Your task to perform on an android device: Open Youtube and go to the subscriptions tab Image 0: 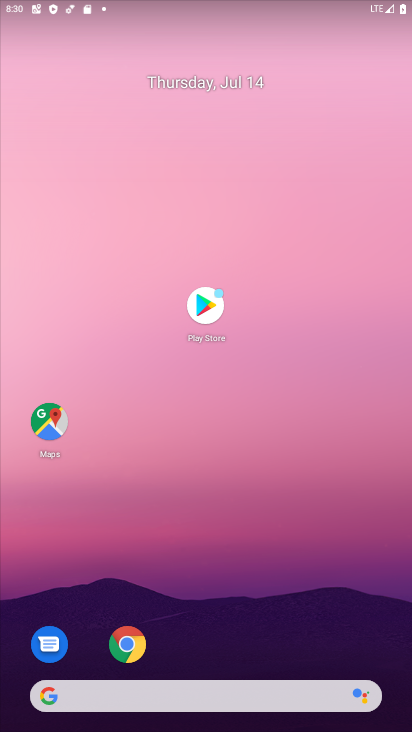
Step 0: drag from (191, 628) to (276, 93)
Your task to perform on an android device: Open Youtube and go to the subscriptions tab Image 1: 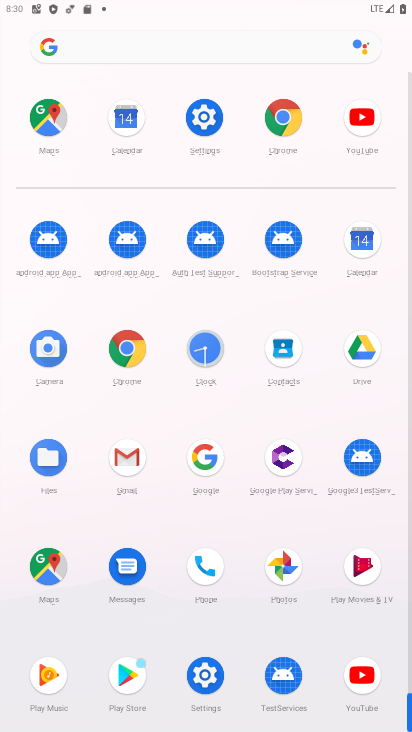
Step 1: click (349, 670)
Your task to perform on an android device: Open Youtube and go to the subscriptions tab Image 2: 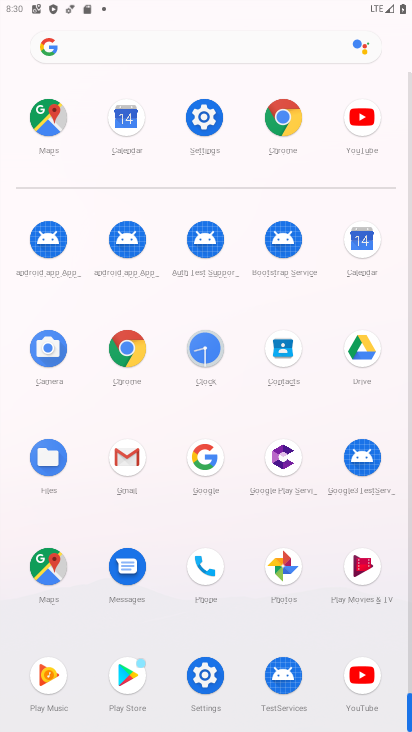
Step 2: click (348, 671)
Your task to perform on an android device: Open Youtube and go to the subscriptions tab Image 3: 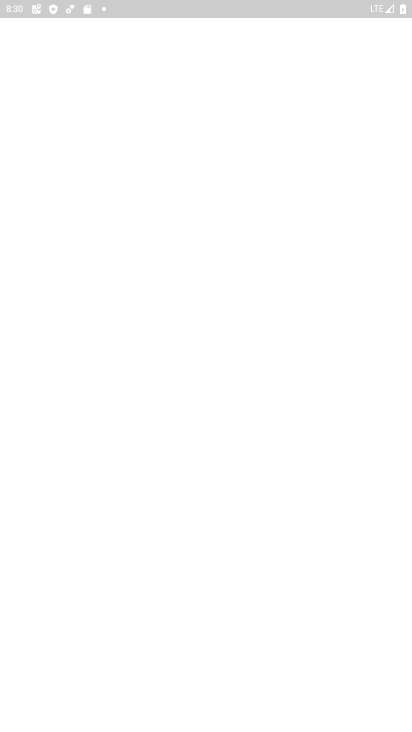
Step 3: drag from (234, 634) to (286, 264)
Your task to perform on an android device: Open Youtube and go to the subscriptions tab Image 4: 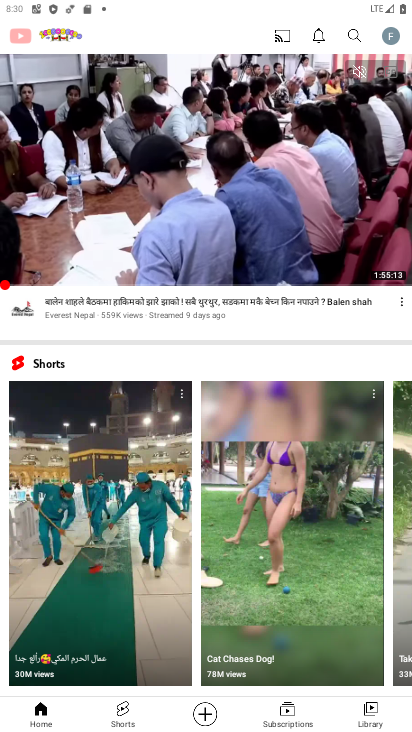
Step 4: click (277, 713)
Your task to perform on an android device: Open Youtube and go to the subscriptions tab Image 5: 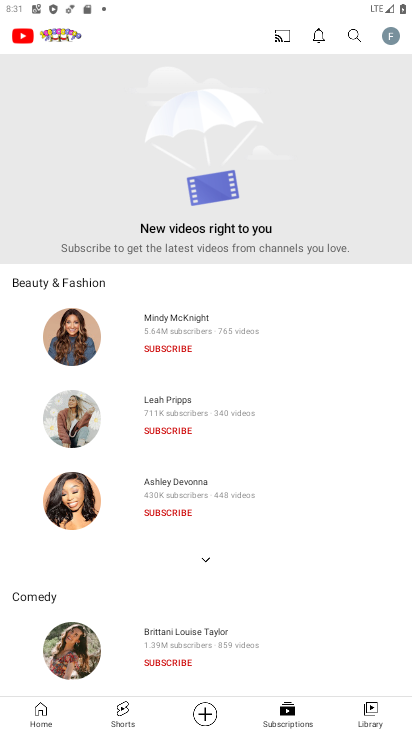
Step 5: drag from (222, 597) to (272, 382)
Your task to perform on an android device: Open Youtube and go to the subscriptions tab Image 6: 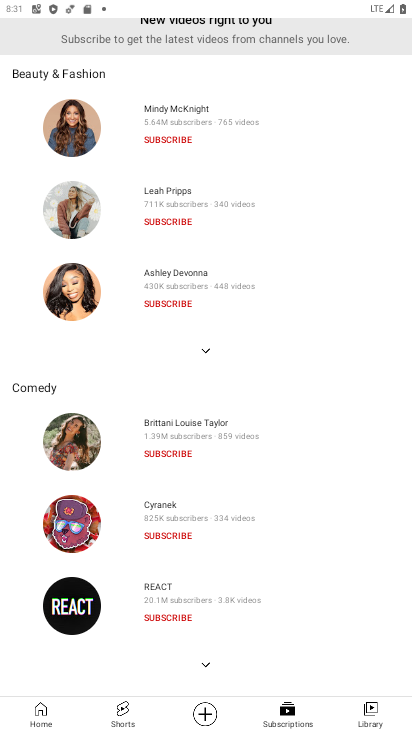
Step 6: click (287, 716)
Your task to perform on an android device: Open Youtube and go to the subscriptions tab Image 7: 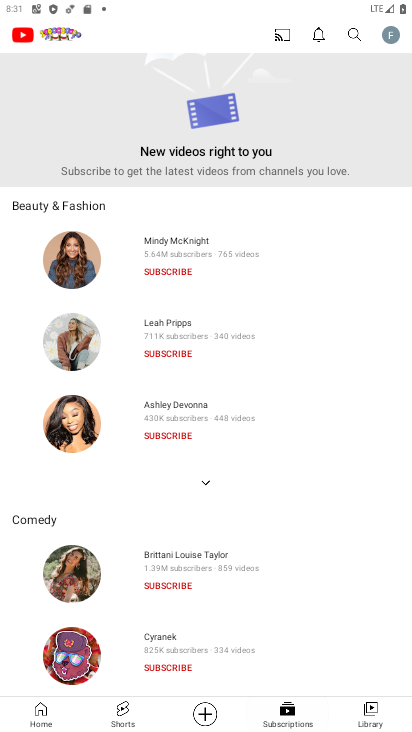
Step 7: task complete